Your task to perform on an android device: remove spam from my inbox in the gmail app Image 0: 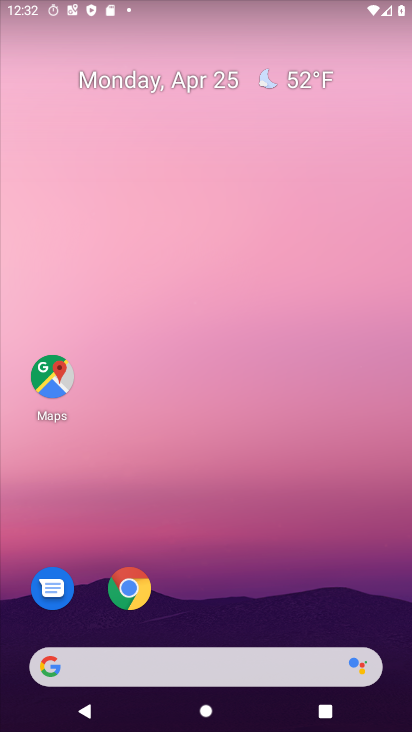
Step 0: drag from (165, 627) to (298, 1)
Your task to perform on an android device: remove spam from my inbox in the gmail app Image 1: 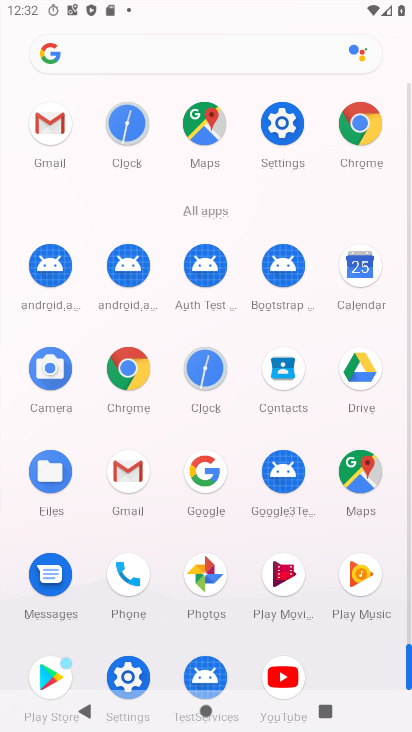
Step 1: click (116, 467)
Your task to perform on an android device: remove spam from my inbox in the gmail app Image 2: 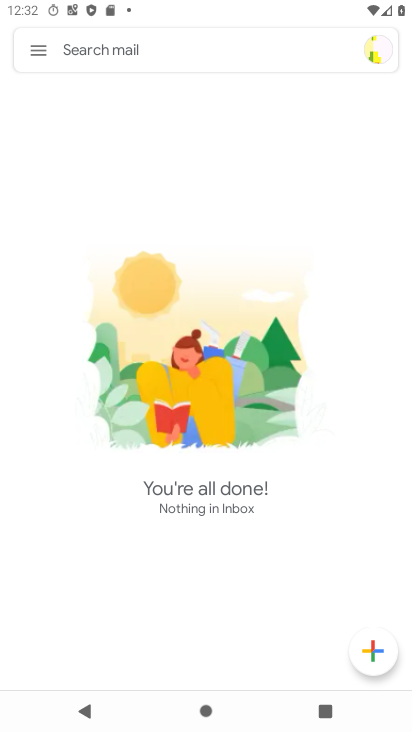
Step 2: click (43, 51)
Your task to perform on an android device: remove spam from my inbox in the gmail app Image 3: 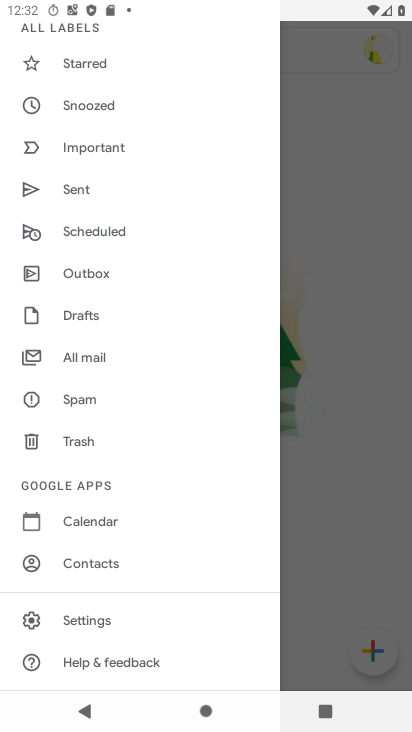
Step 3: click (116, 412)
Your task to perform on an android device: remove spam from my inbox in the gmail app Image 4: 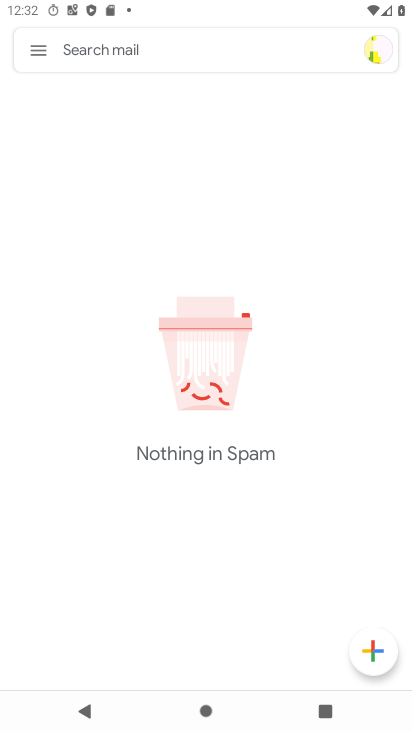
Step 4: task complete